Your task to perform on an android device: visit the assistant section in the google photos Image 0: 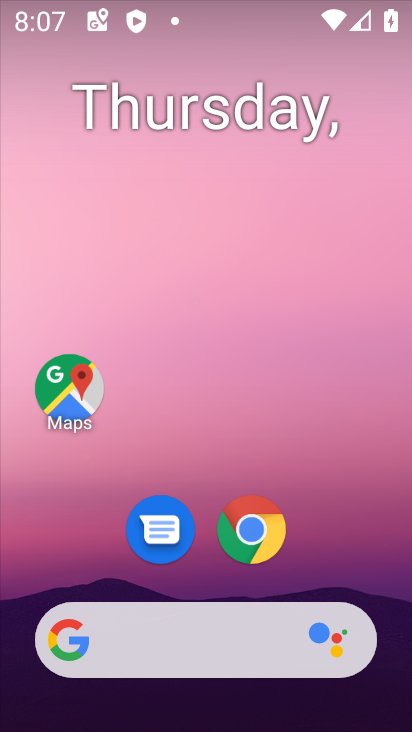
Step 0: drag from (217, 724) to (221, 117)
Your task to perform on an android device: visit the assistant section in the google photos Image 1: 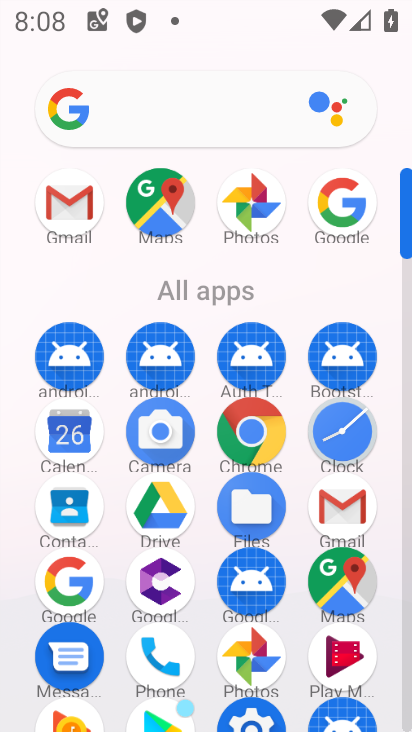
Step 1: click (261, 634)
Your task to perform on an android device: visit the assistant section in the google photos Image 2: 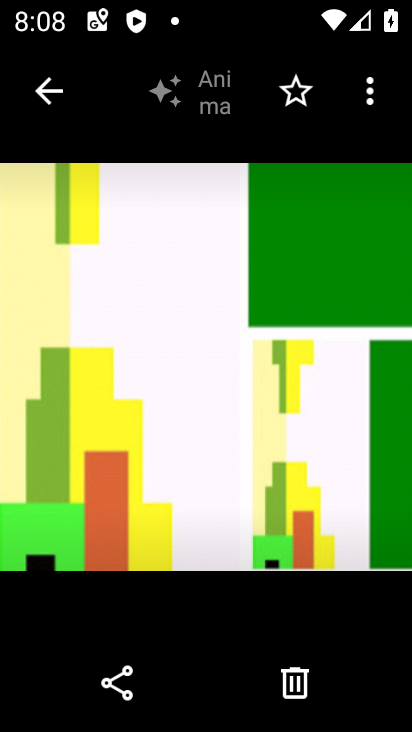
Step 2: click (49, 88)
Your task to perform on an android device: visit the assistant section in the google photos Image 3: 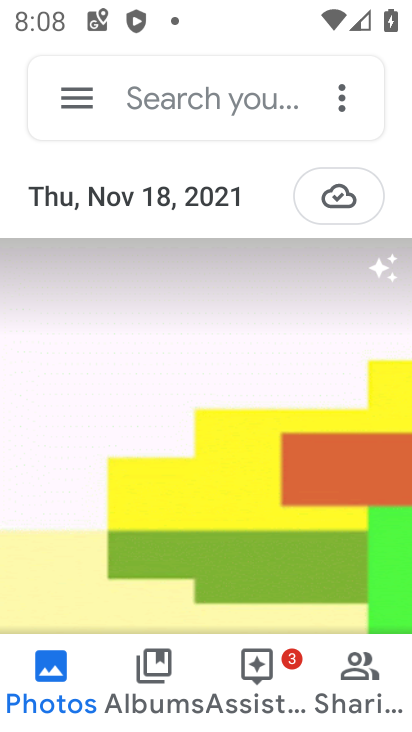
Step 3: click (270, 659)
Your task to perform on an android device: visit the assistant section in the google photos Image 4: 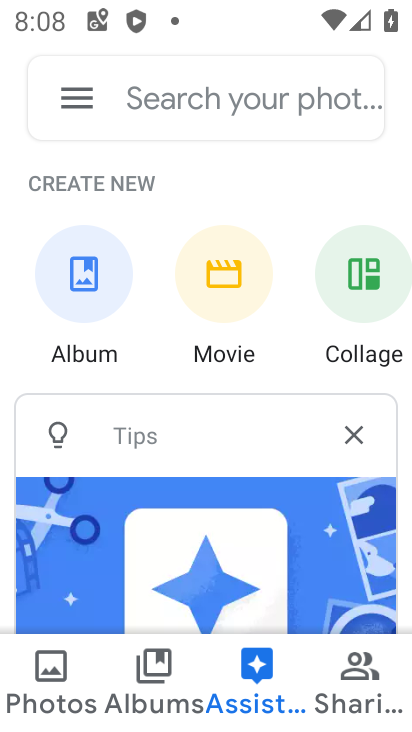
Step 4: task complete